Your task to perform on an android device: open app "ColorNote Notepad Notes" Image 0: 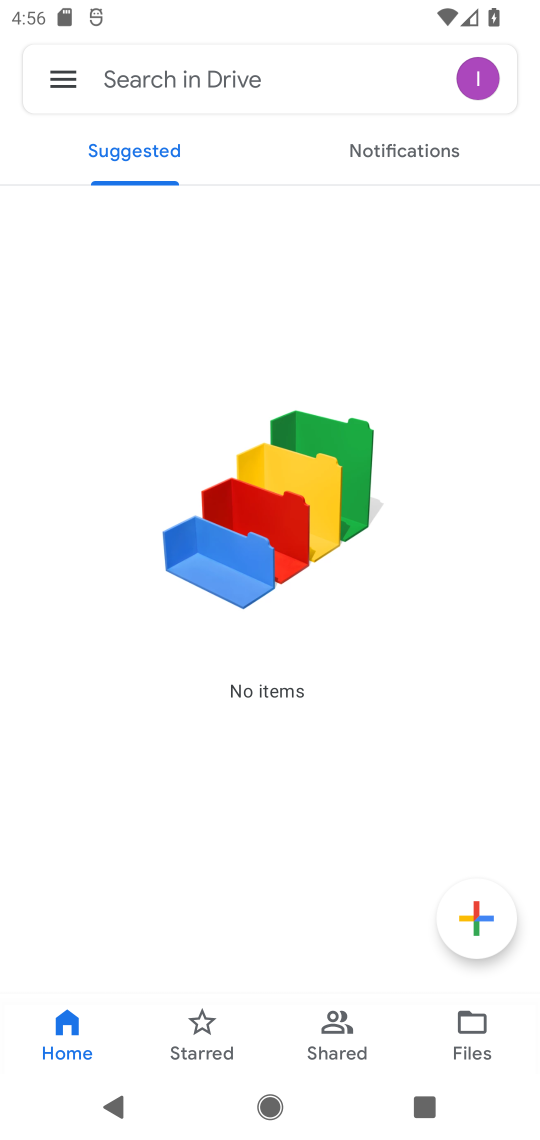
Step 0: press home button
Your task to perform on an android device: open app "ColorNote Notepad Notes" Image 1: 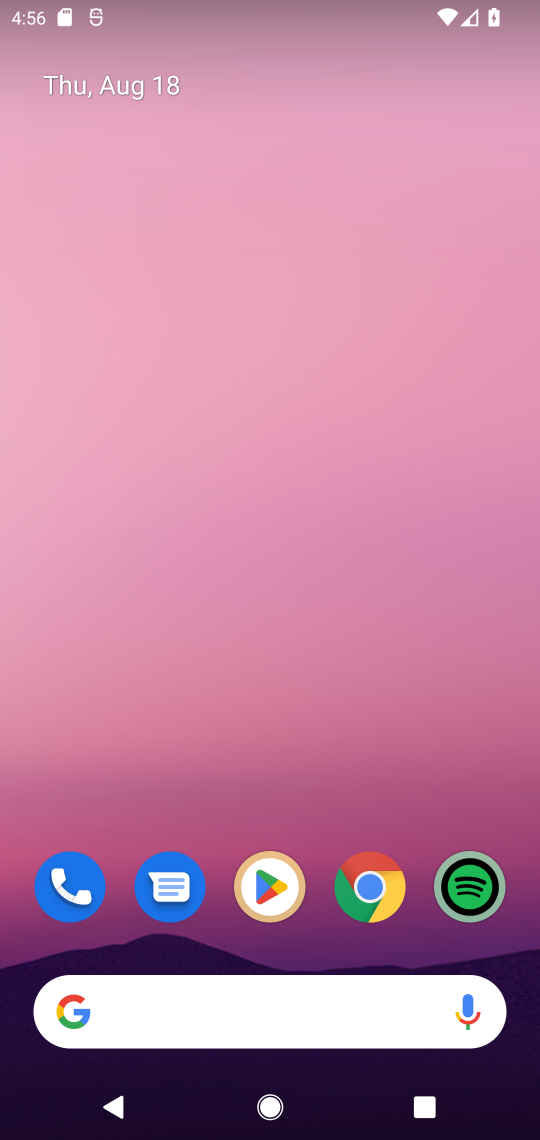
Step 1: click (269, 885)
Your task to perform on an android device: open app "ColorNote Notepad Notes" Image 2: 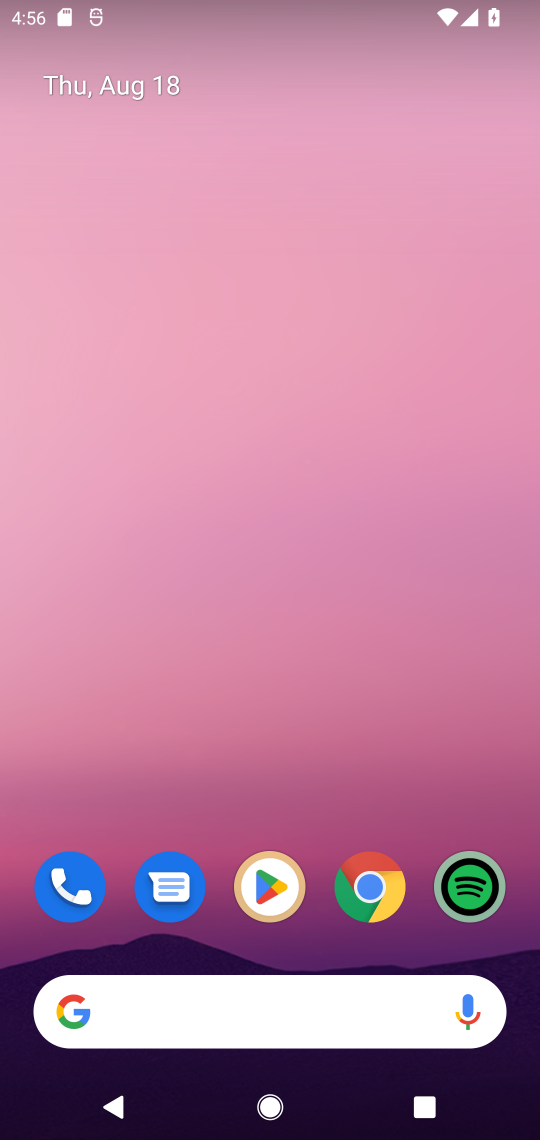
Step 2: click (257, 899)
Your task to perform on an android device: open app "ColorNote Notepad Notes" Image 3: 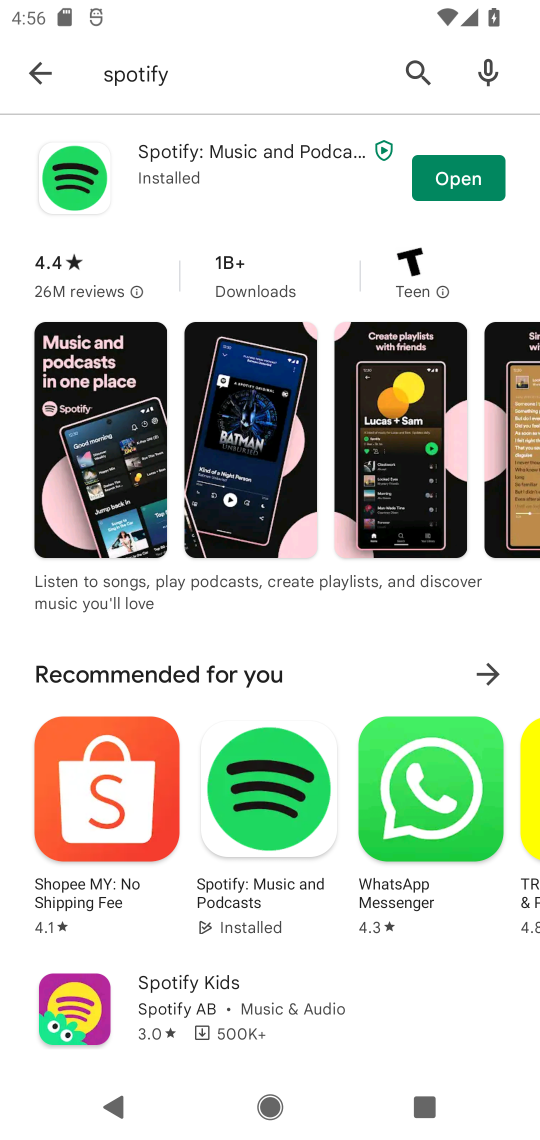
Step 3: click (415, 68)
Your task to perform on an android device: open app "ColorNote Notepad Notes" Image 4: 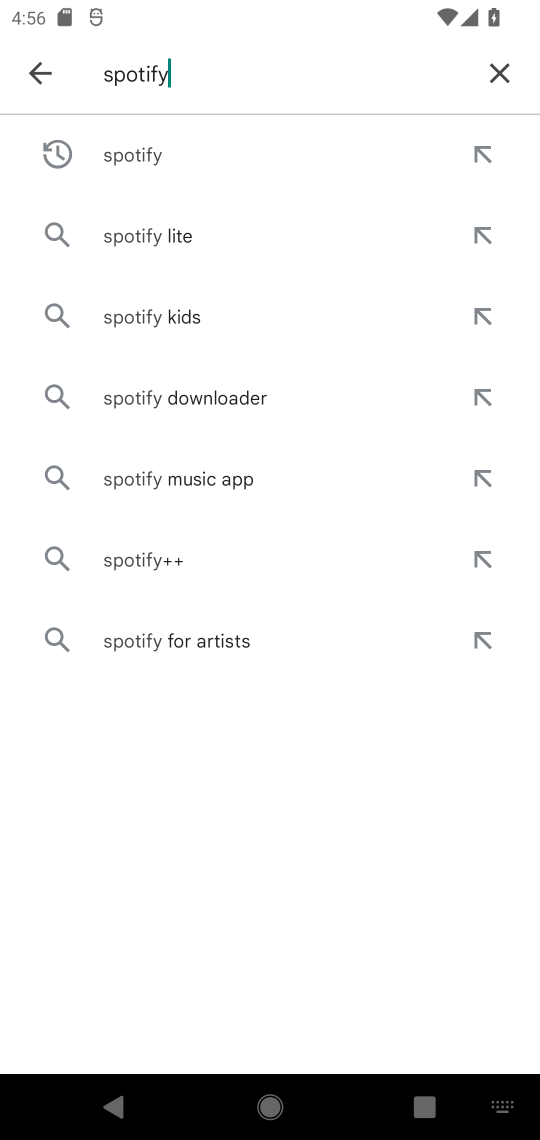
Step 4: click (494, 68)
Your task to perform on an android device: open app "ColorNote Notepad Notes" Image 5: 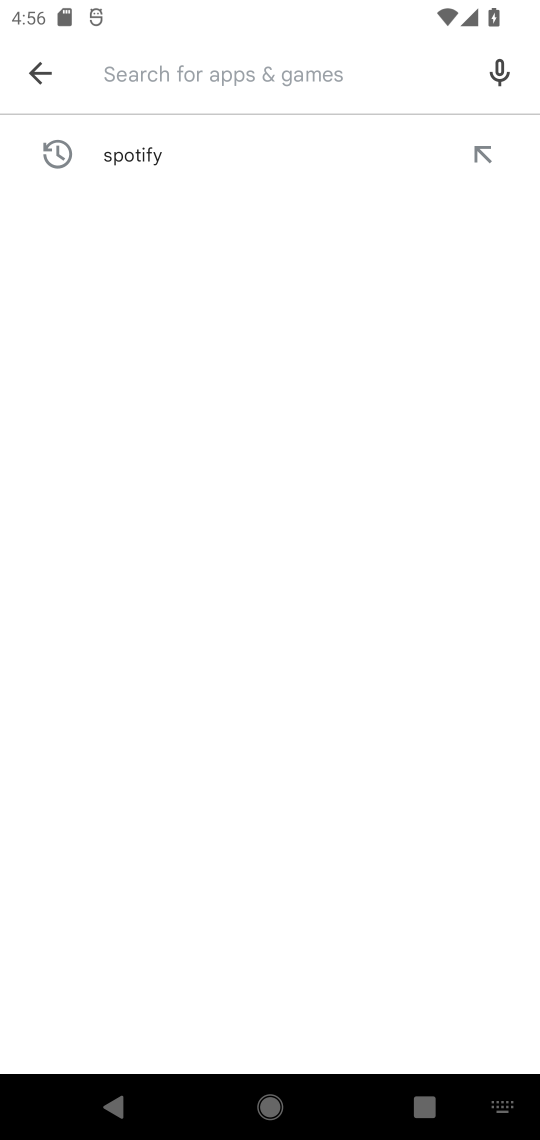
Step 5: type "ColorNote Notepad Notes"
Your task to perform on an android device: open app "ColorNote Notepad Notes" Image 6: 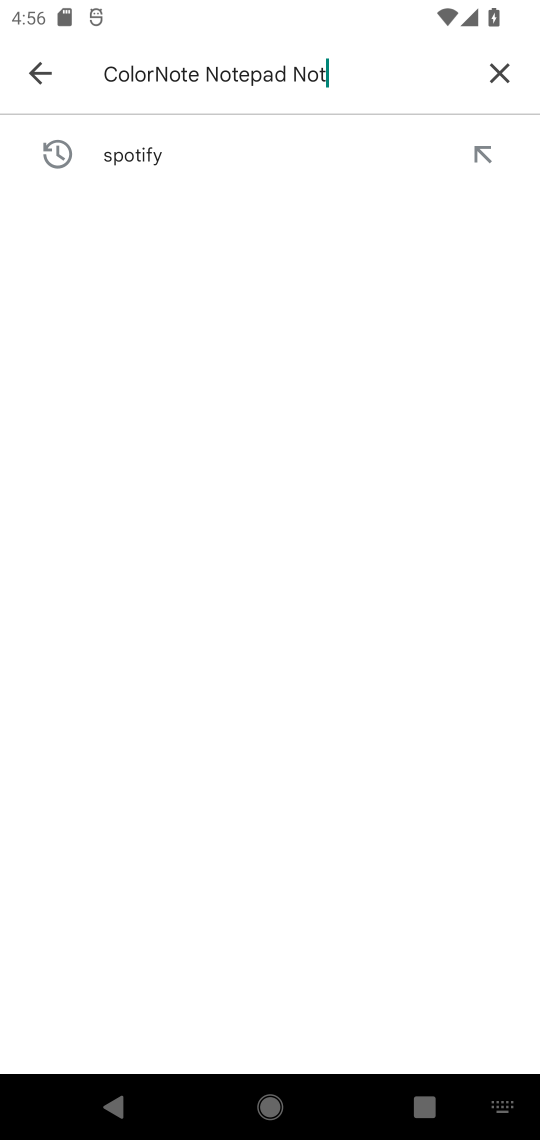
Step 6: type ""
Your task to perform on an android device: open app "ColorNote Notepad Notes" Image 7: 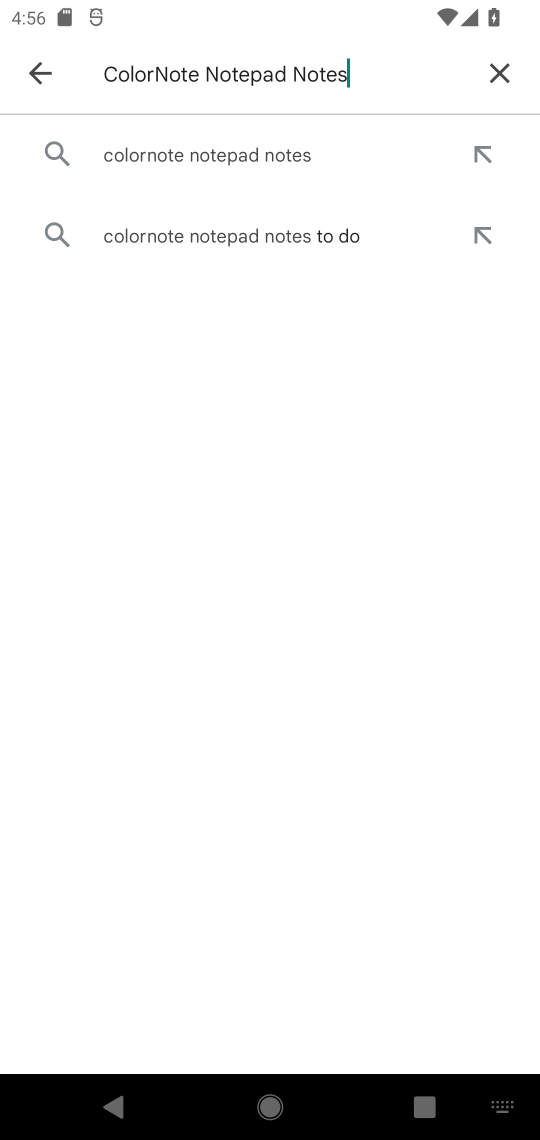
Step 7: click (235, 153)
Your task to perform on an android device: open app "ColorNote Notepad Notes" Image 8: 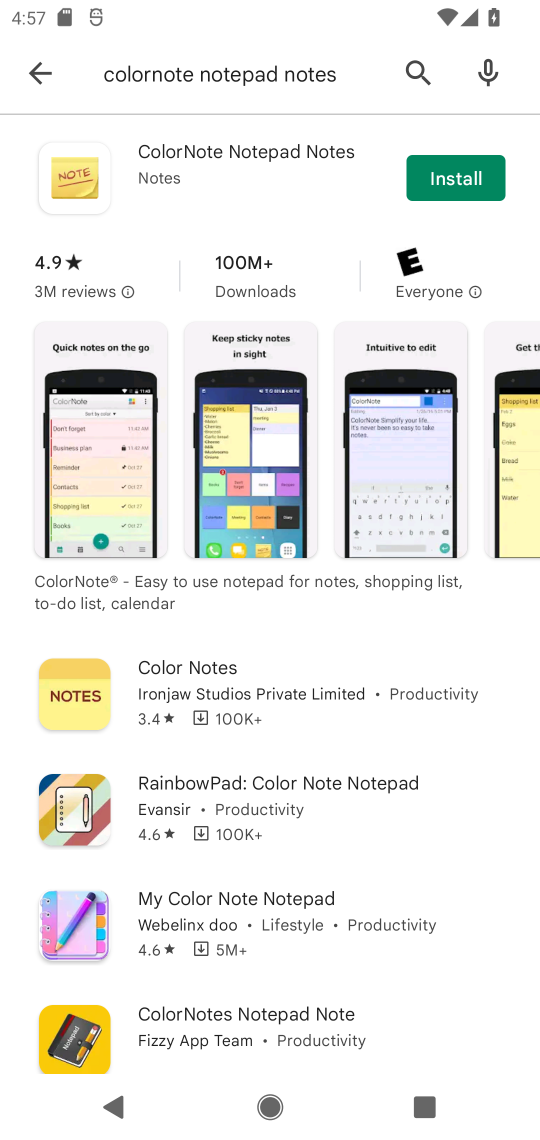
Step 8: task complete